Your task to perform on an android device: turn notification dots on Image 0: 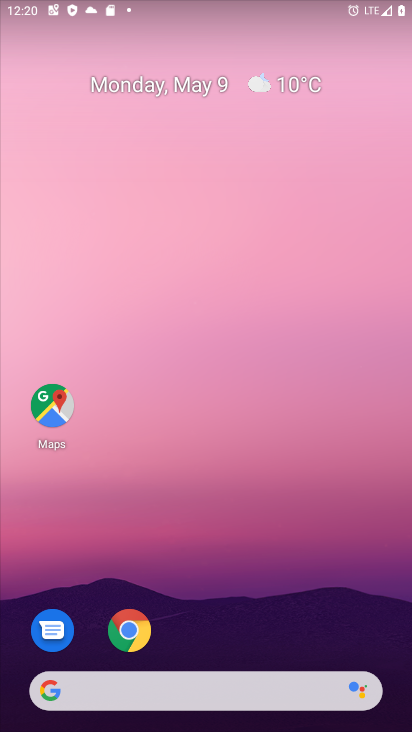
Step 0: drag from (335, 623) to (226, 50)
Your task to perform on an android device: turn notification dots on Image 1: 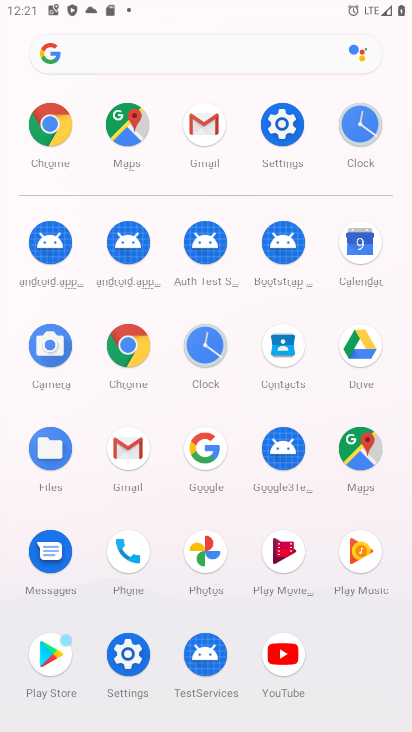
Step 1: click (286, 119)
Your task to perform on an android device: turn notification dots on Image 2: 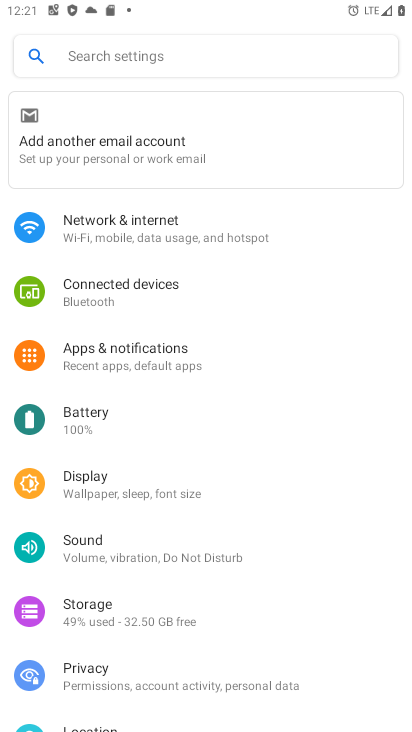
Step 2: click (137, 365)
Your task to perform on an android device: turn notification dots on Image 3: 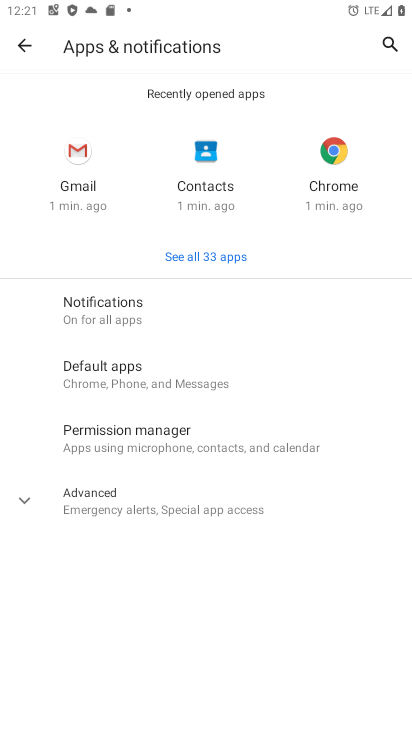
Step 3: click (181, 320)
Your task to perform on an android device: turn notification dots on Image 4: 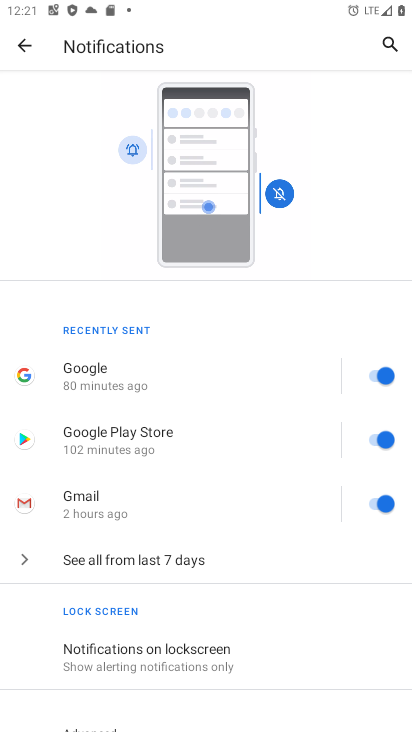
Step 4: drag from (134, 645) to (102, 108)
Your task to perform on an android device: turn notification dots on Image 5: 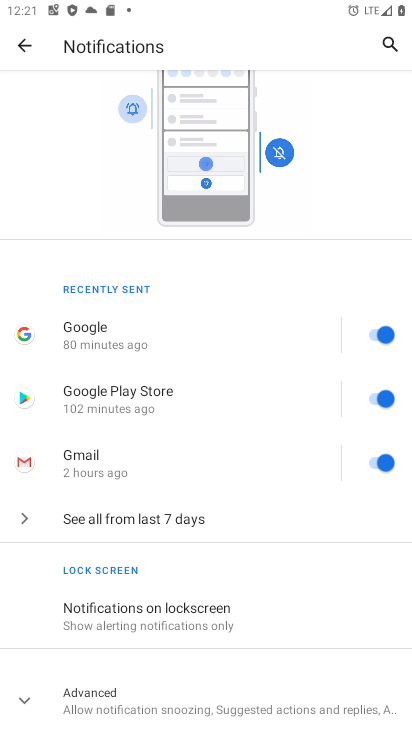
Step 5: click (0, 687)
Your task to perform on an android device: turn notification dots on Image 6: 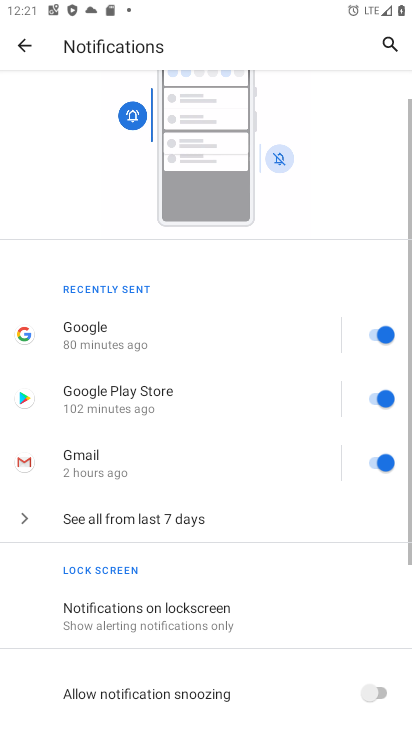
Step 6: task complete